Your task to perform on an android device: turn pop-ups off in chrome Image 0: 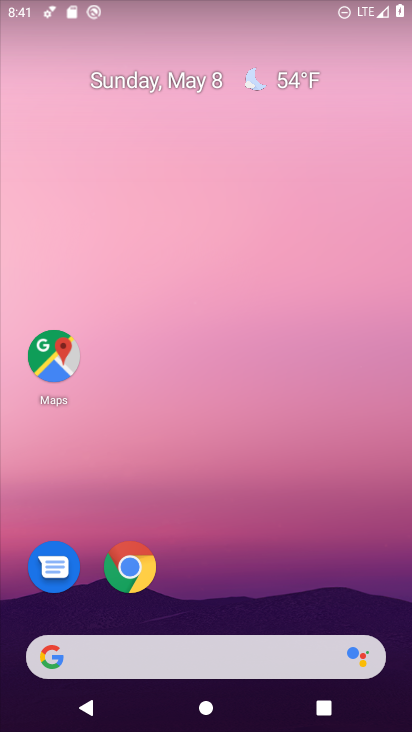
Step 0: drag from (328, 563) to (385, 144)
Your task to perform on an android device: turn pop-ups off in chrome Image 1: 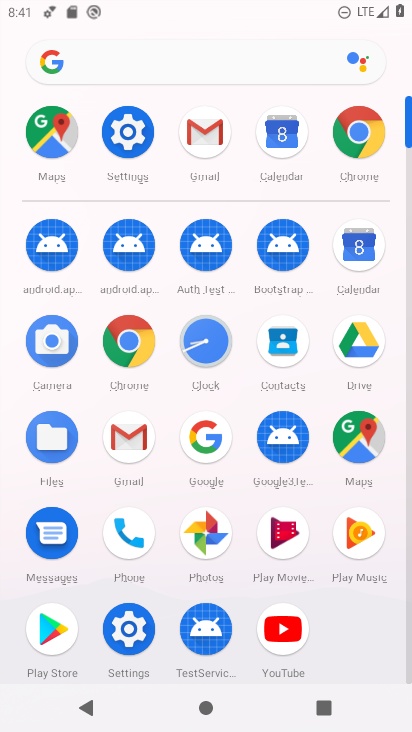
Step 1: click (364, 153)
Your task to perform on an android device: turn pop-ups off in chrome Image 2: 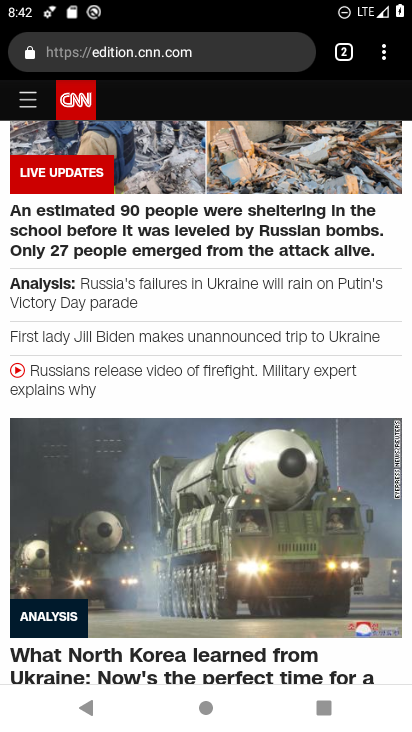
Step 2: drag from (385, 52) to (210, 572)
Your task to perform on an android device: turn pop-ups off in chrome Image 3: 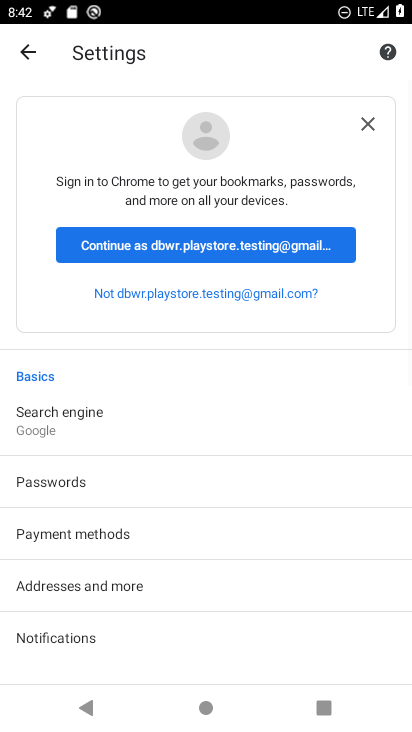
Step 3: drag from (282, 543) to (346, 126)
Your task to perform on an android device: turn pop-ups off in chrome Image 4: 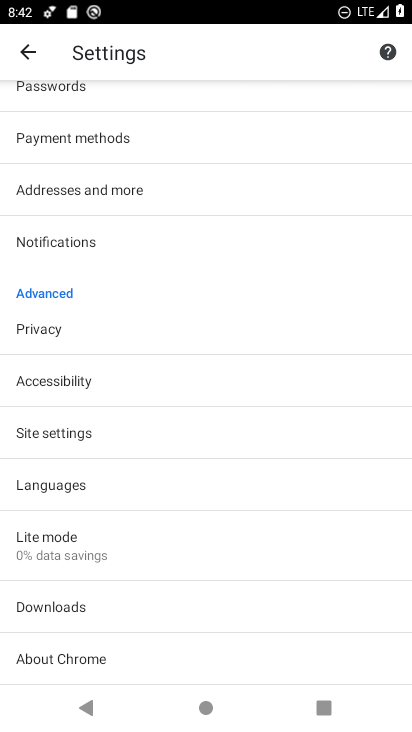
Step 4: drag from (163, 599) to (264, 122)
Your task to perform on an android device: turn pop-ups off in chrome Image 5: 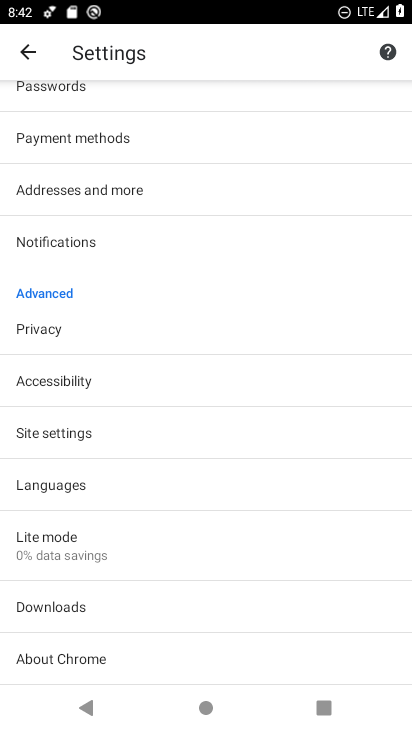
Step 5: click (27, 432)
Your task to perform on an android device: turn pop-ups off in chrome Image 6: 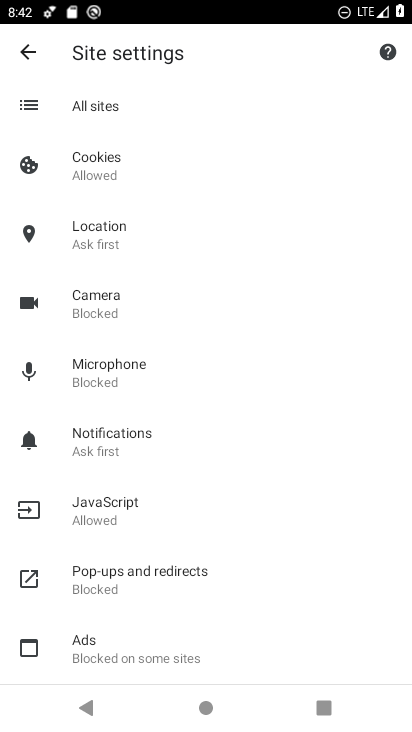
Step 6: click (155, 575)
Your task to perform on an android device: turn pop-ups off in chrome Image 7: 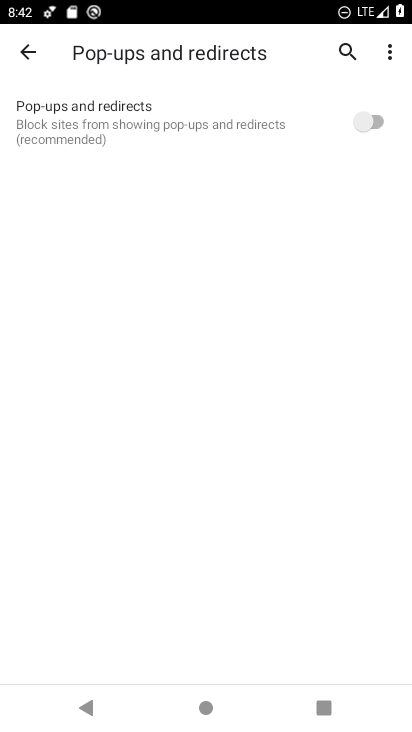
Step 7: task complete